Your task to perform on an android device: check battery use Image 0: 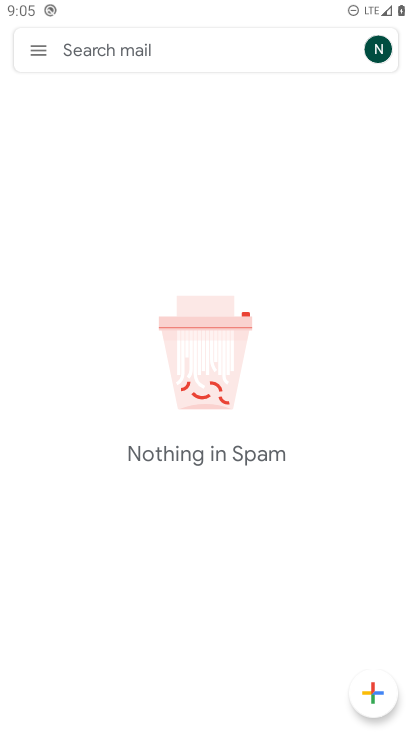
Step 0: press home button
Your task to perform on an android device: check battery use Image 1: 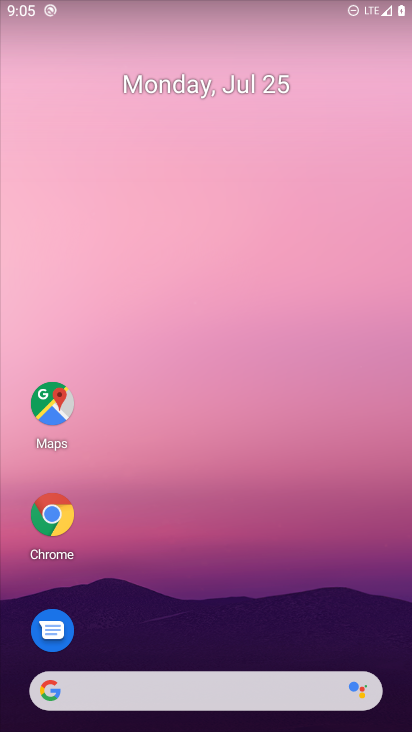
Step 1: drag from (15, 663) to (257, 206)
Your task to perform on an android device: check battery use Image 2: 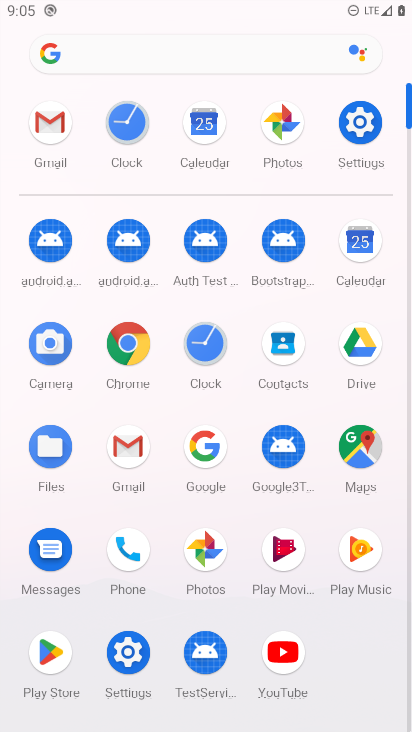
Step 2: click (148, 649)
Your task to perform on an android device: check battery use Image 3: 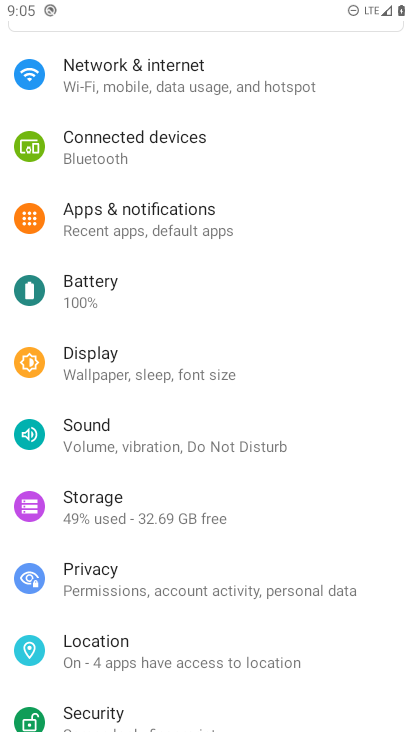
Step 3: click (133, 288)
Your task to perform on an android device: check battery use Image 4: 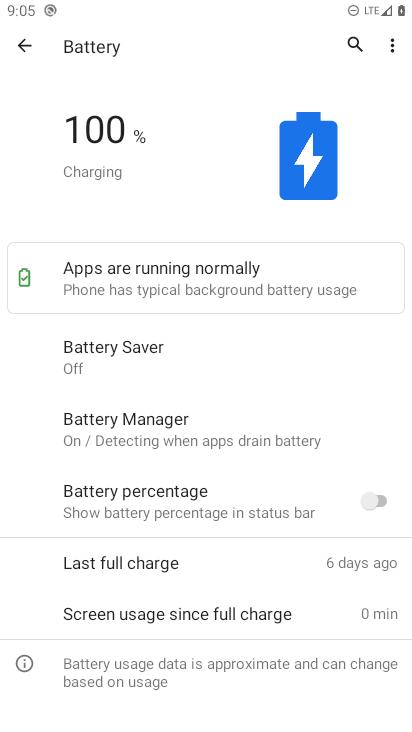
Step 4: task complete